Your task to perform on an android device: Add bose quietcomfort 35 to the cart on amazon.com Image 0: 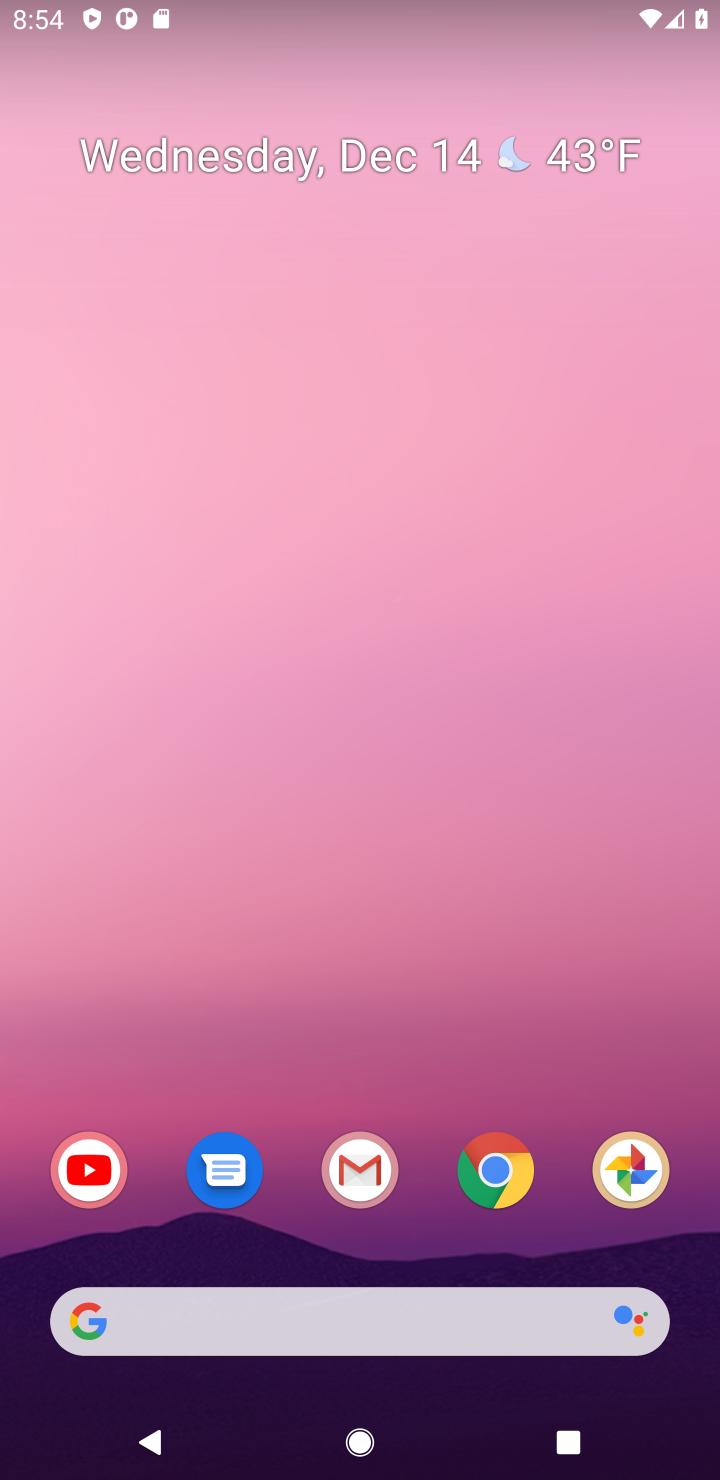
Step 0: click (522, 1170)
Your task to perform on an android device: Add bose quietcomfort 35 to the cart on amazon.com Image 1: 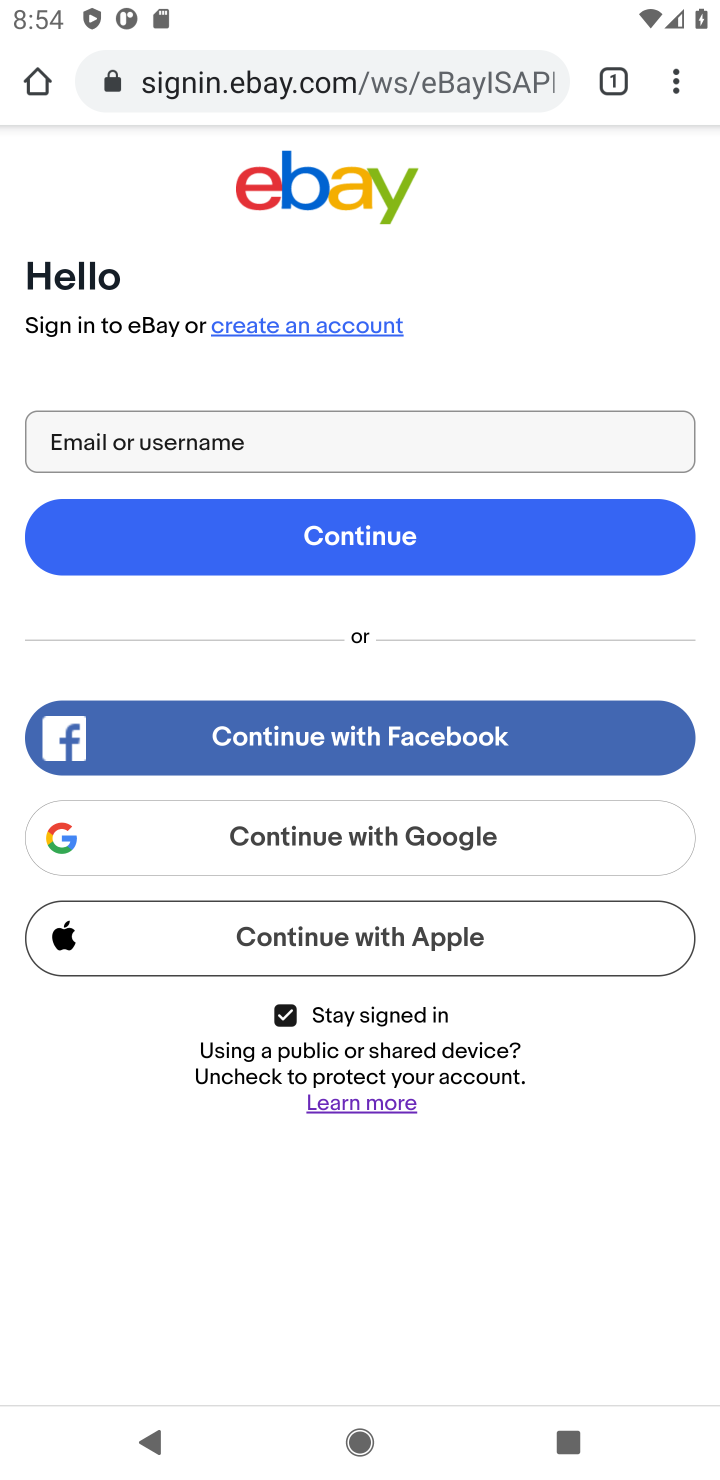
Step 1: click (314, 73)
Your task to perform on an android device: Add bose quietcomfort 35 to the cart on amazon.com Image 2: 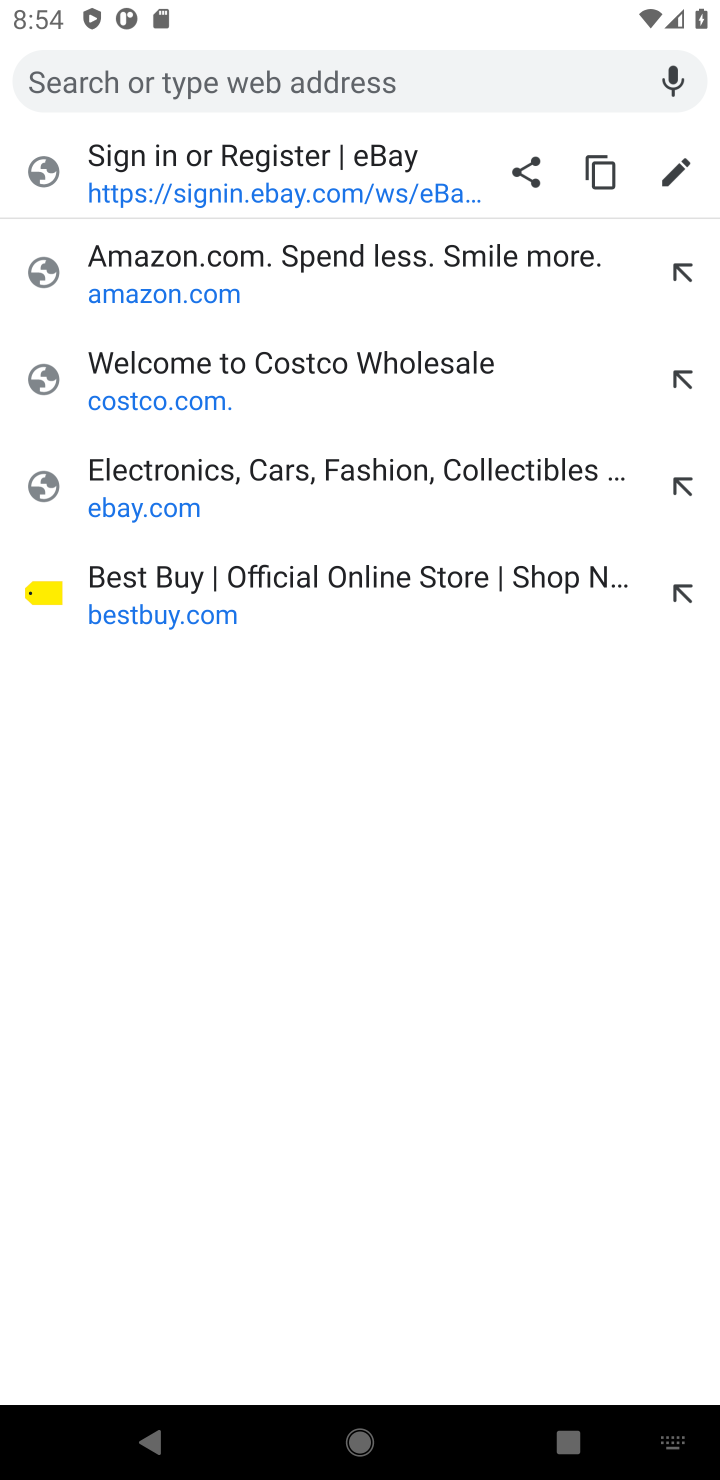
Step 2: click (318, 287)
Your task to perform on an android device: Add bose quietcomfort 35 to the cart on amazon.com Image 3: 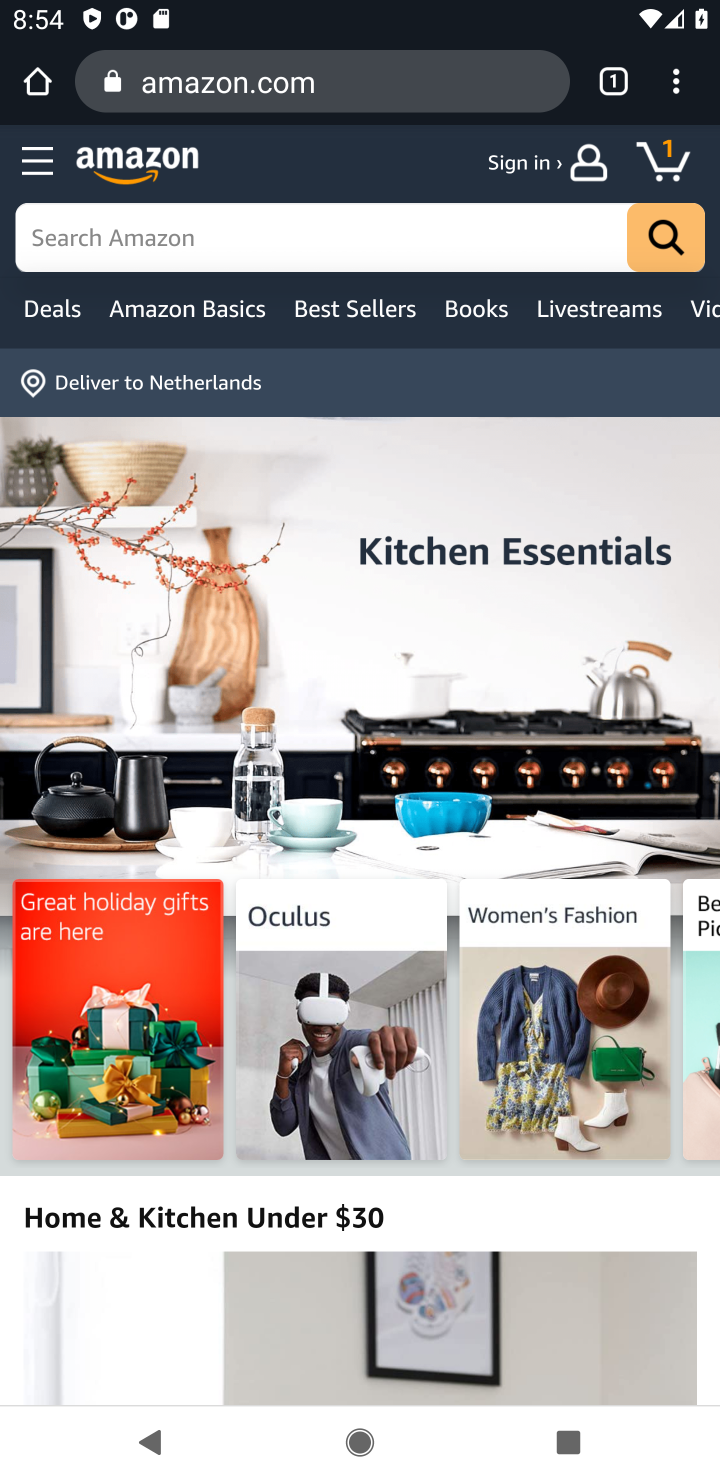
Step 3: click (347, 234)
Your task to perform on an android device: Add bose quietcomfort 35 to the cart on amazon.com Image 4: 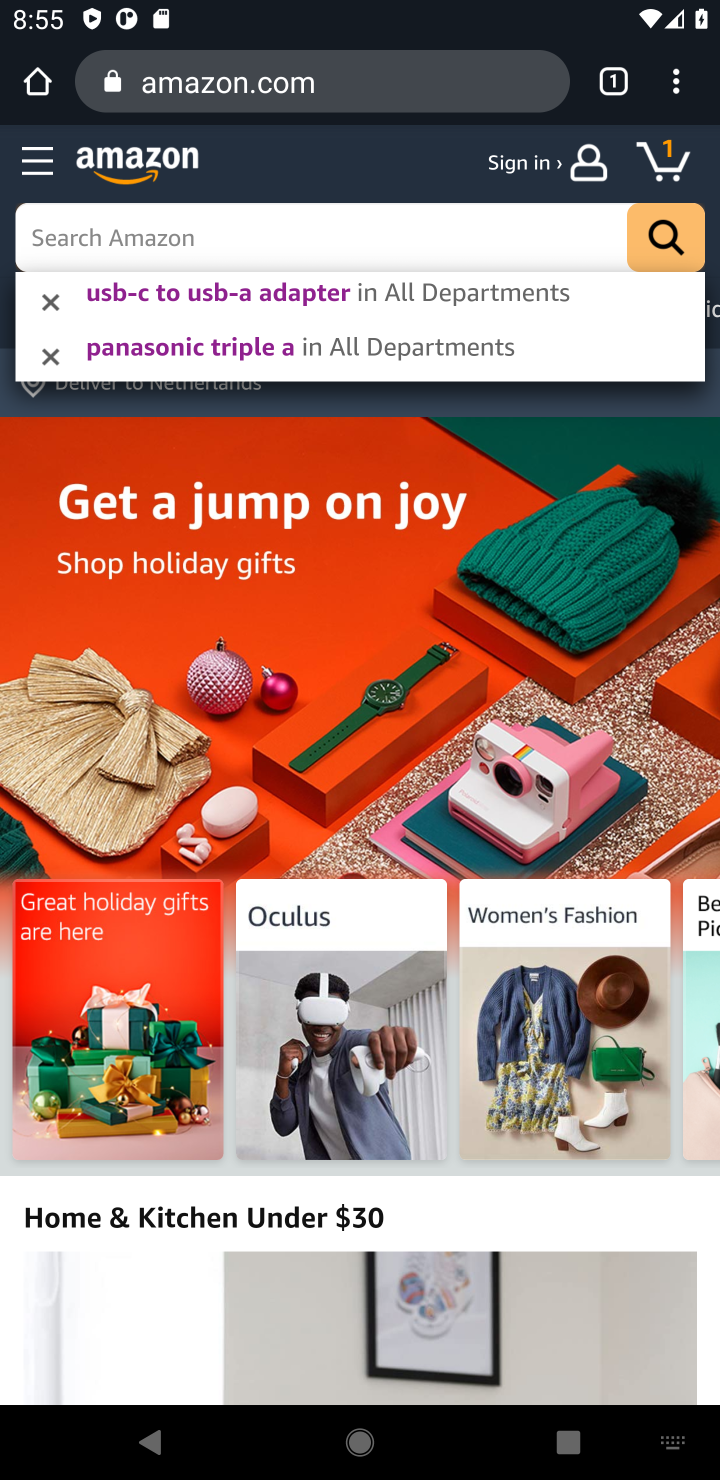
Step 4: click (274, 247)
Your task to perform on an android device: Add bose quietcomfort 35 to the cart on amazon.com Image 5: 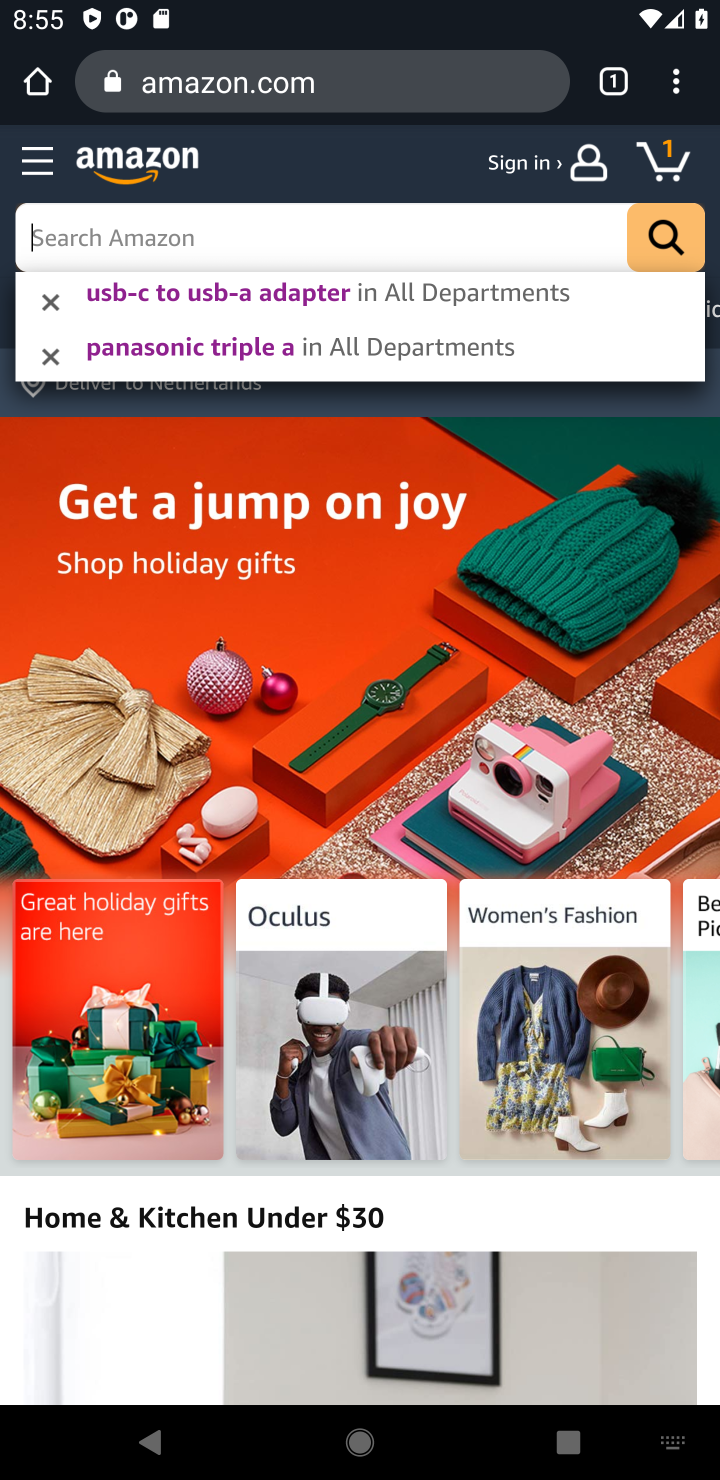
Step 5: click (274, 247)
Your task to perform on an android device: Add bose quietcomfort 35 to the cart on amazon.com Image 6: 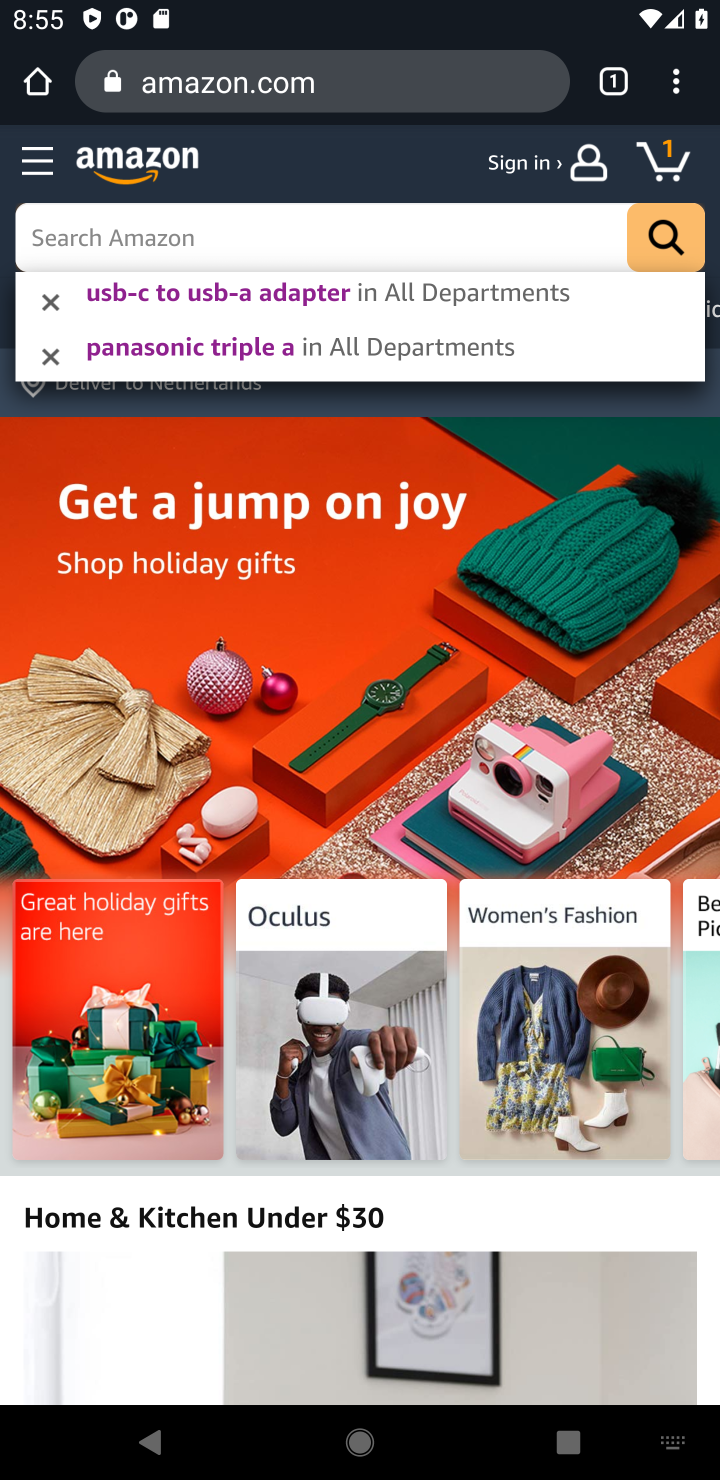
Step 6: type "bose quietcomfort 35"
Your task to perform on an android device: Add bose quietcomfort 35 to the cart on amazon.com Image 7: 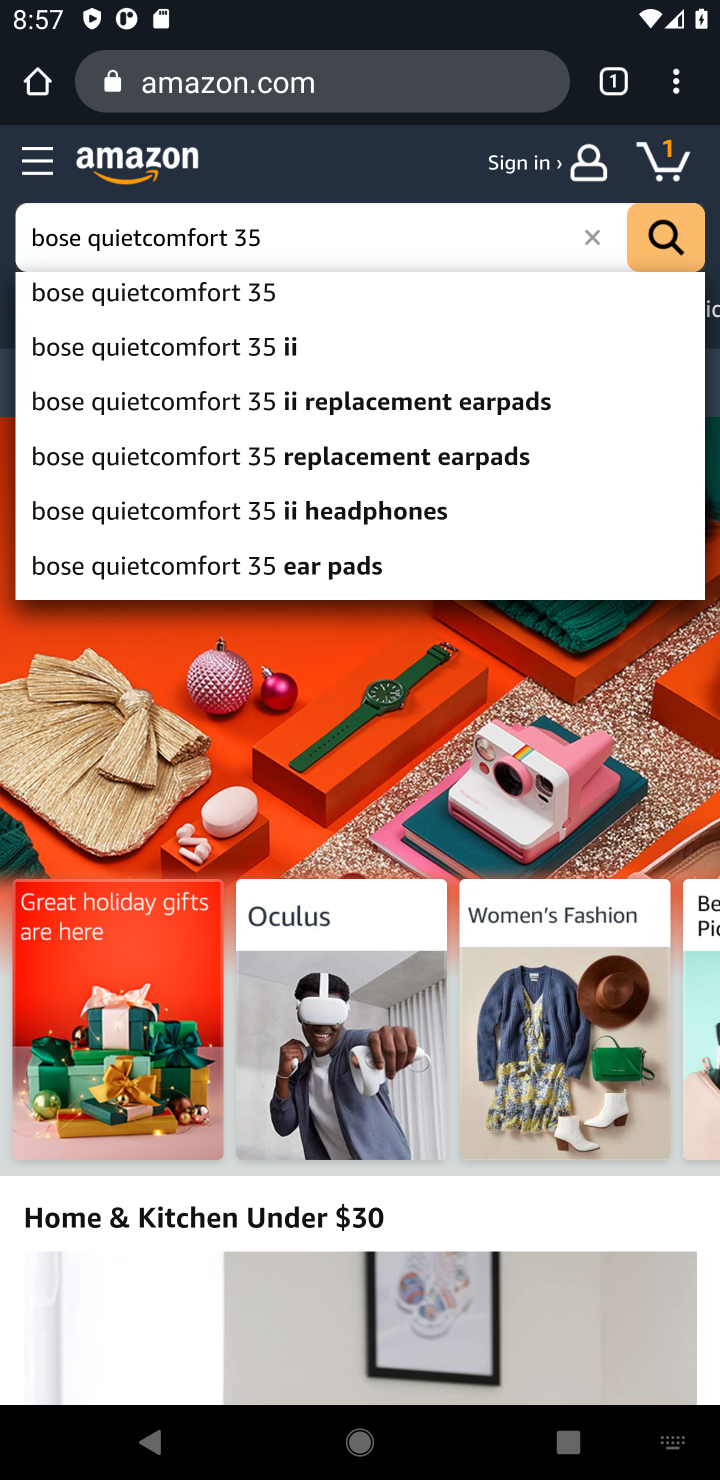
Step 7: click (286, 302)
Your task to perform on an android device: Add bose quietcomfort 35 to the cart on amazon.com Image 8: 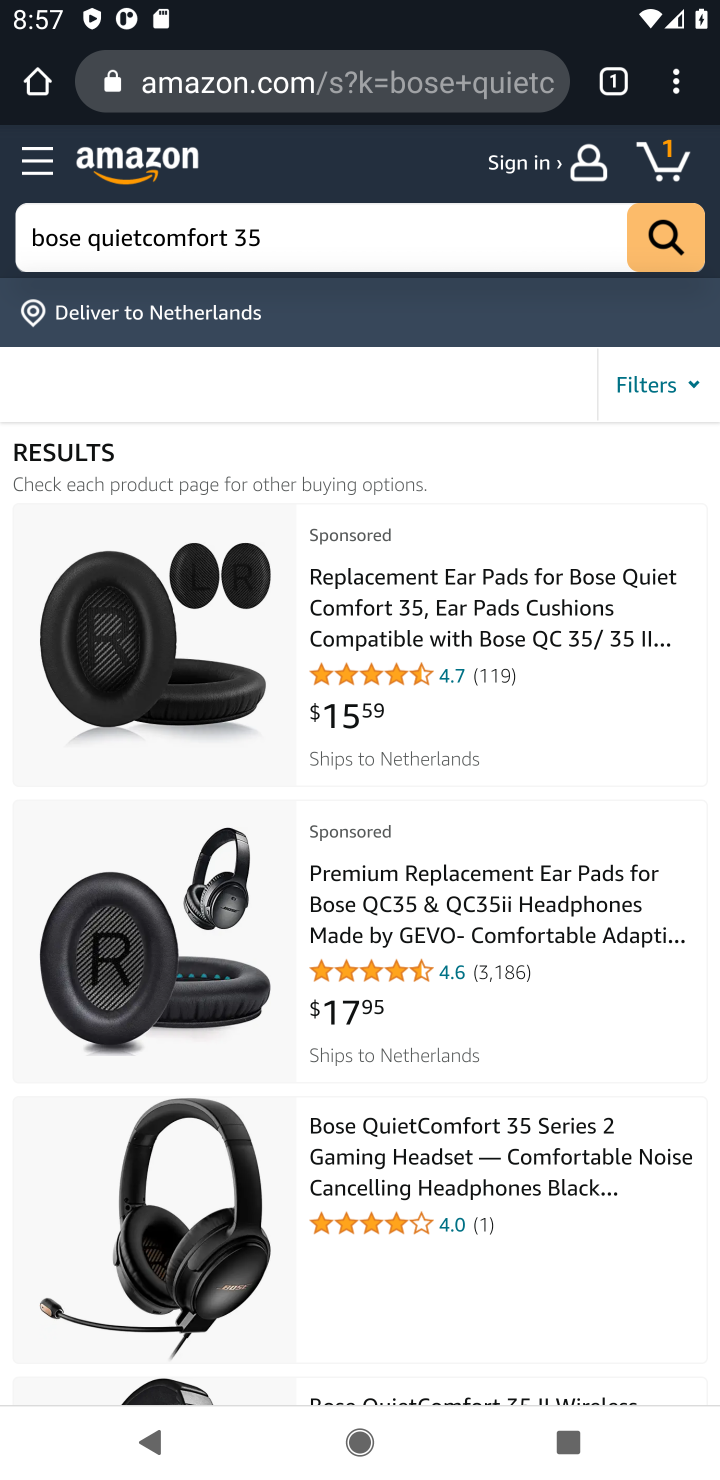
Step 8: click (514, 664)
Your task to perform on an android device: Add bose quietcomfort 35 to the cart on amazon.com Image 9: 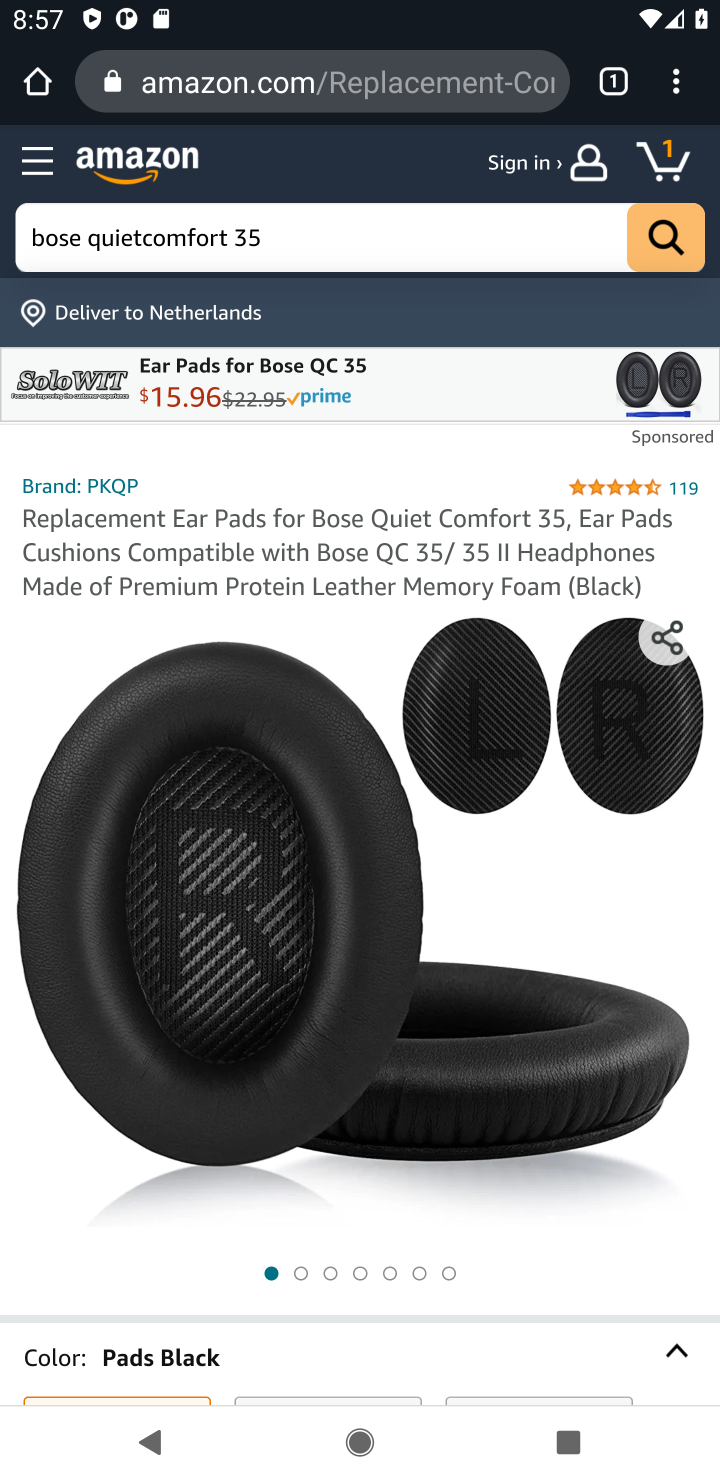
Step 9: drag from (586, 1272) to (466, 293)
Your task to perform on an android device: Add bose quietcomfort 35 to the cart on amazon.com Image 10: 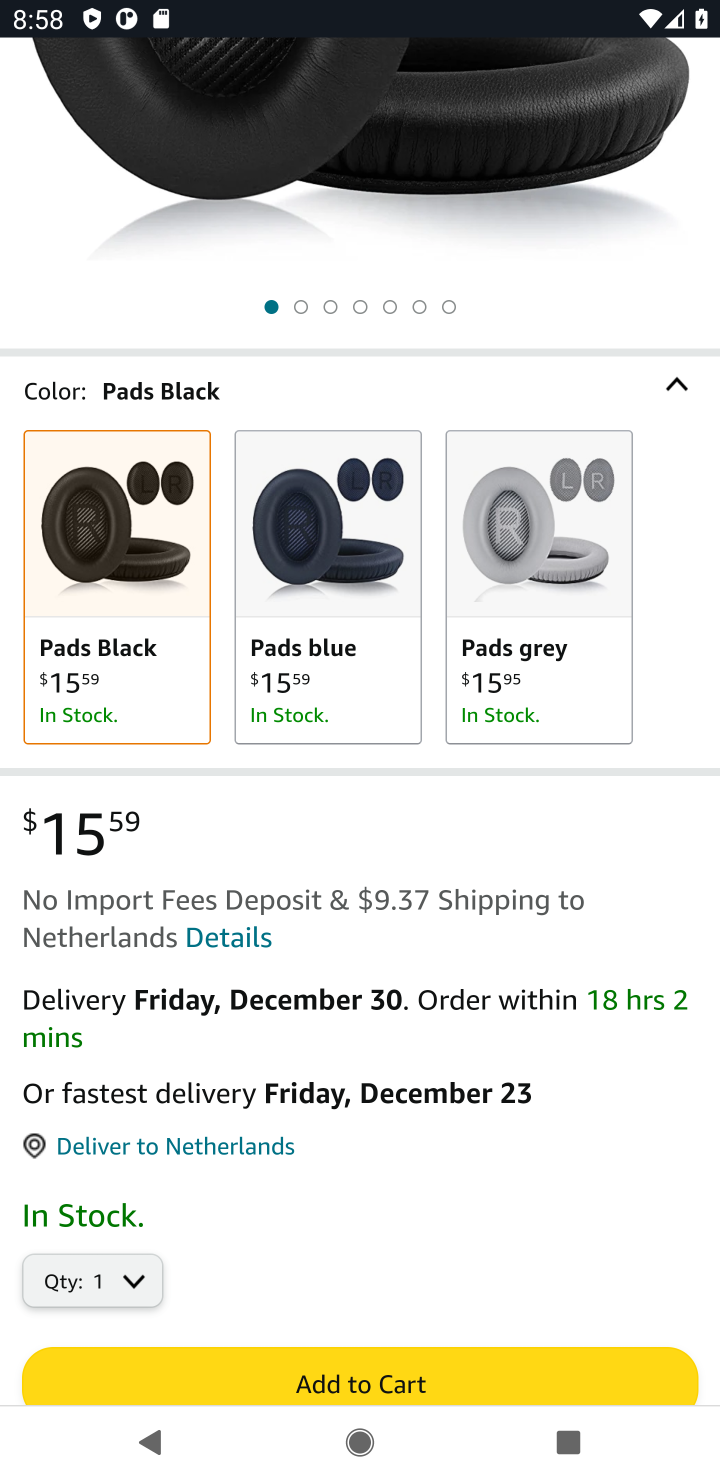
Step 10: click (389, 1376)
Your task to perform on an android device: Add bose quietcomfort 35 to the cart on amazon.com Image 11: 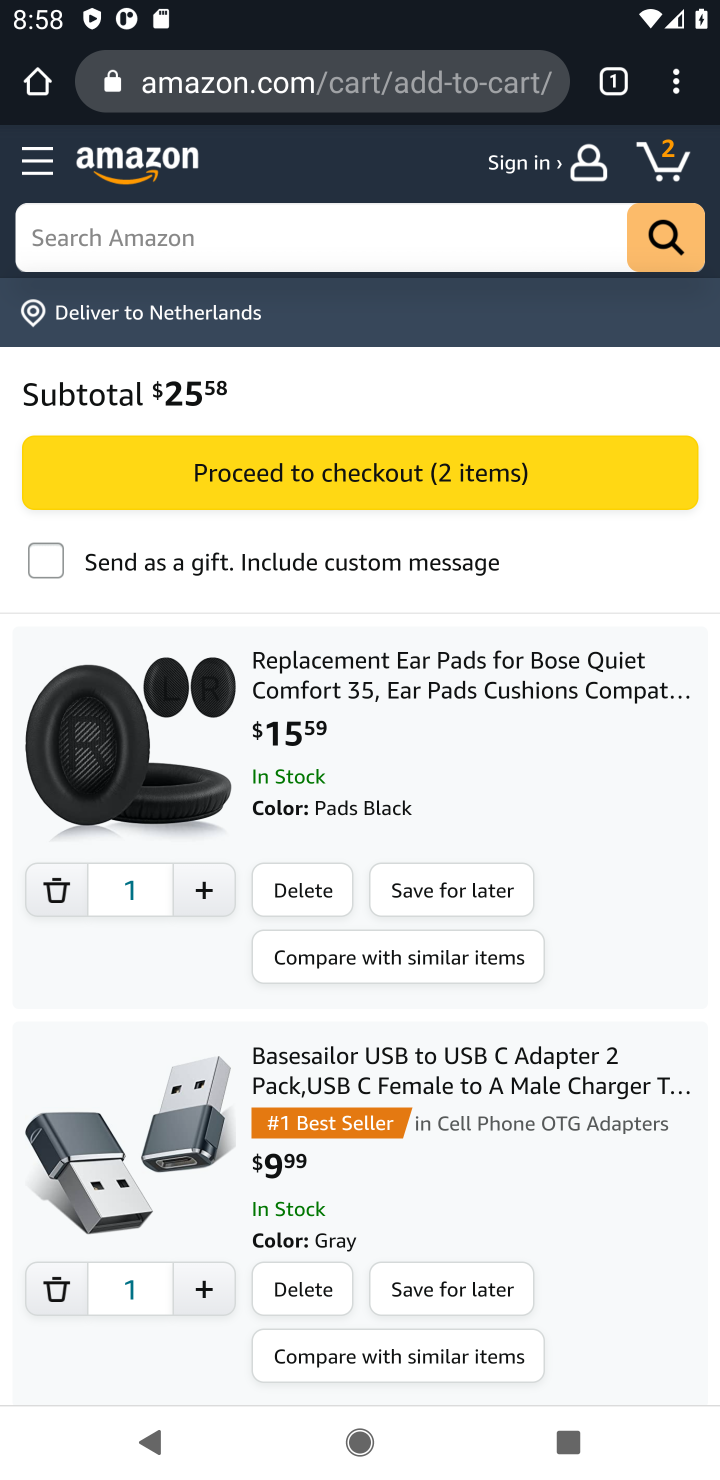
Step 11: click (298, 477)
Your task to perform on an android device: Add bose quietcomfort 35 to the cart on amazon.com Image 12: 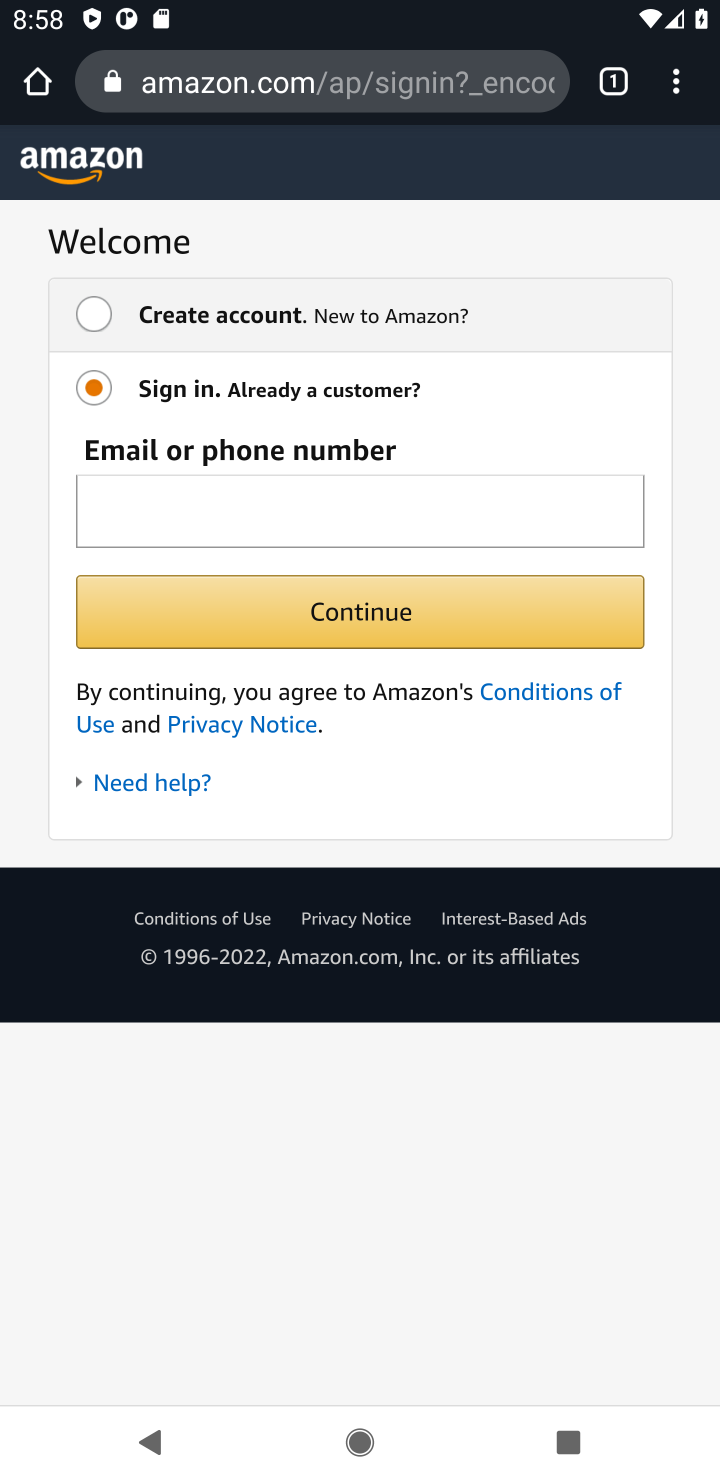
Step 12: task complete